Your task to perform on an android device: change the clock display to digital Image 0: 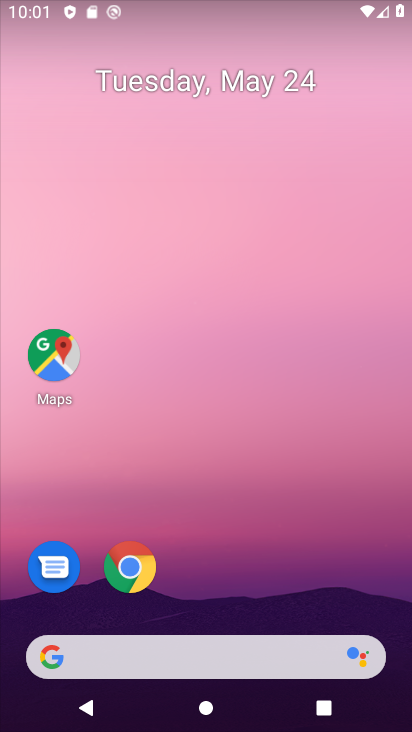
Step 0: drag from (400, 464) to (403, 279)
Your task to perform on an android device: change the clock display to digital Image 1: 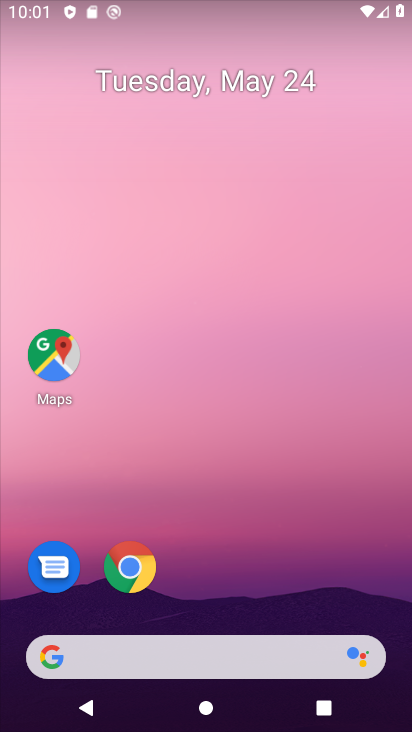
Step 1: drag from (400, 706) to (389, 240)
Your task to perform on an android device: change the clock display to digital Image 2: 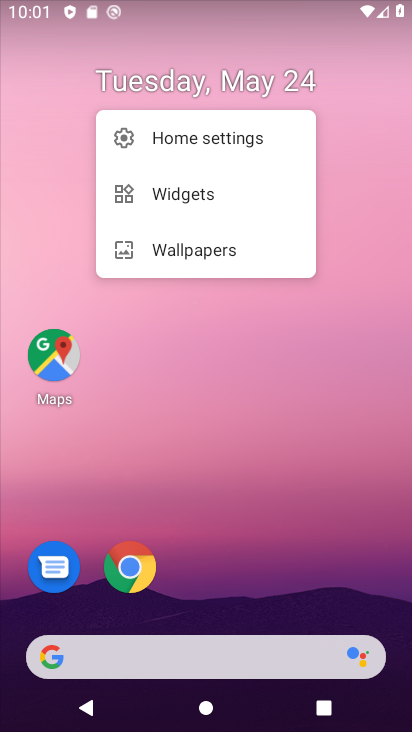
Step 2: press home button
Your task to perform on an android device: change the clock display to digital Image 3: 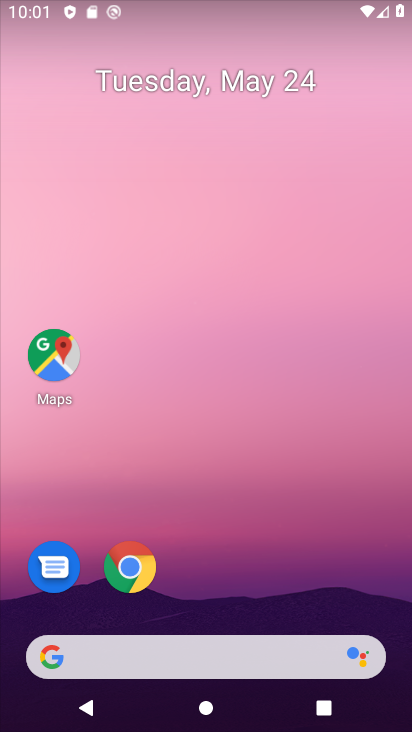
Step 3: drag from (399, 325) to (399, 257)
Your task to perform on an android device: change the clock display to digital Image 4: 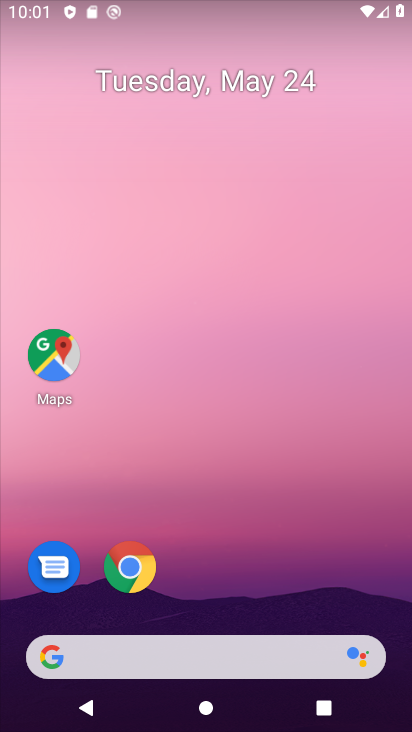
Step 4: drag from (395, 687) to (402, 275)
Your task to perform on an android device: change the clock display to digital Image 5: 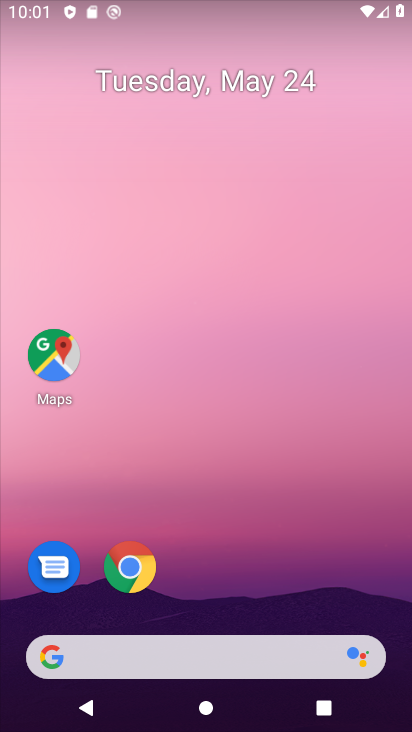
Step 5: drag from (390, 690) to (397, 149)
Your task to perform on an android device: change the clock display to digital Image 6: 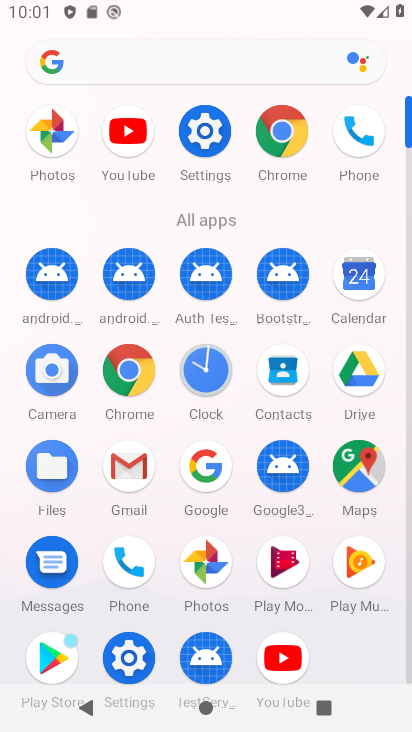
Step 6: click (208, 367)
Your task to perform on an android device: change the clock display to digital Image 7: 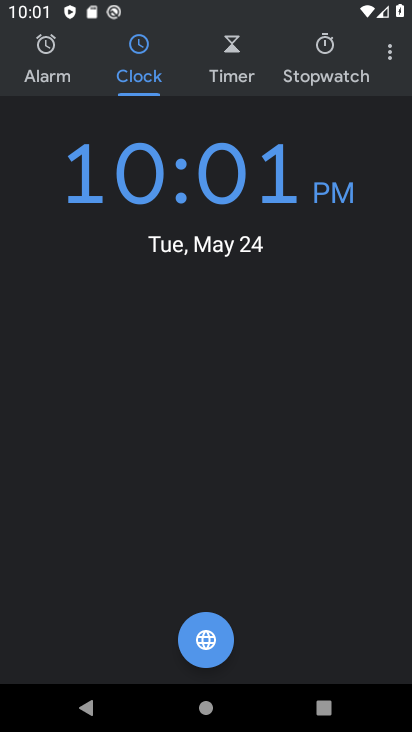
Step 7: click (385, 53)
Your task to perform on an android device: change the clock display to digital Image 8: 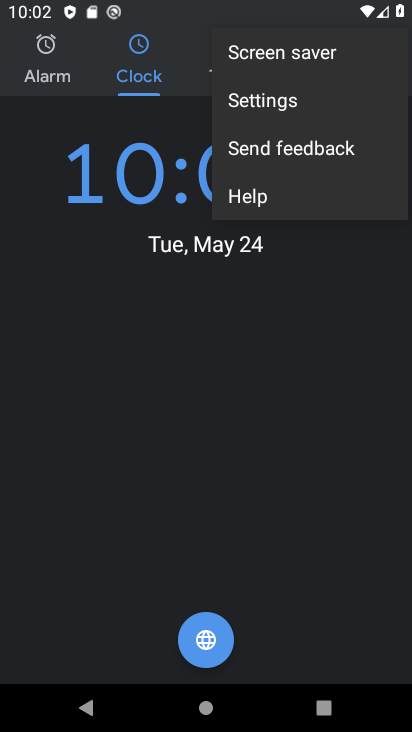
Step 8: click (283, 99)
Your task to perform on an android device: change the clock display to digital Image 9: 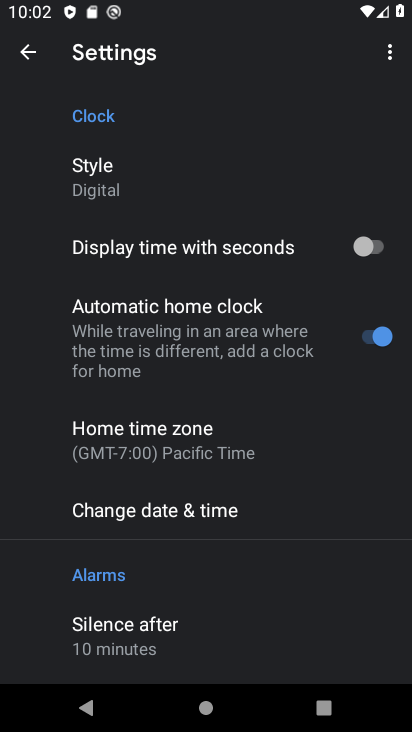
Step 9: click (106, 186)
Your task to perform on an android device: change the clock display to digital Image 10: 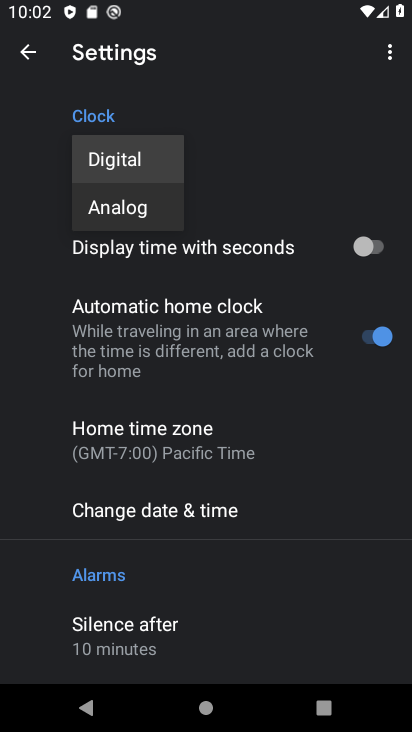
Step 10: click (114, 160)
Your task to perform on an android device: change the clock display to digital Image 11: 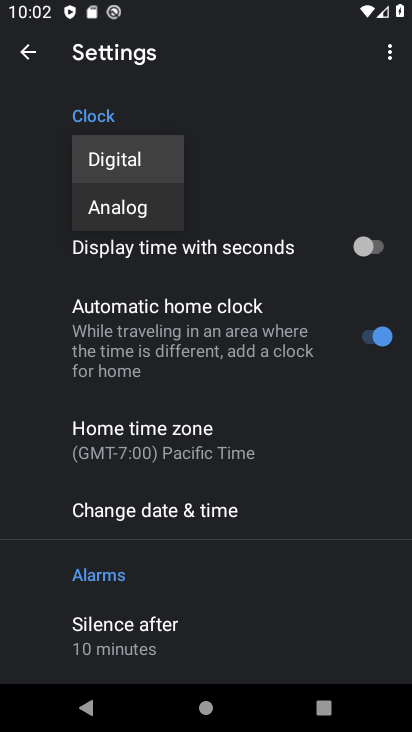
Step 11: task complete